Your task to perform on an android device: View the shopping cart on target. Image 0: 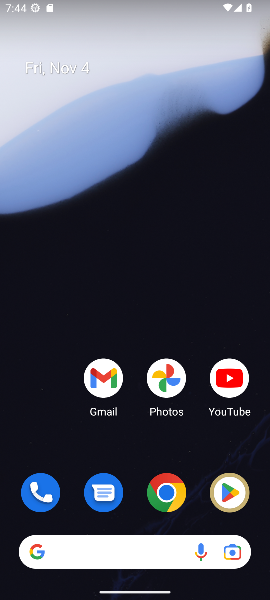
Step 0: drag from (138, 454) to (127, 0)
Your task to perform on an android device: View the shopping cart on target. Image 1: 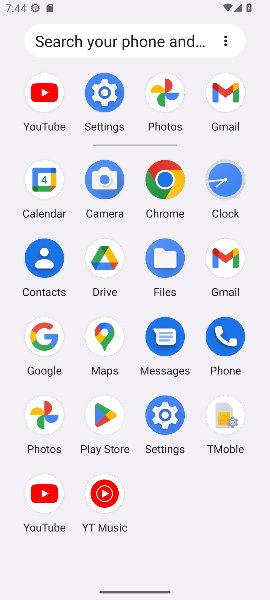
Step 1: click (165, 186)
Your task to perform on an android device: View the shopping cart on target. Image 2: 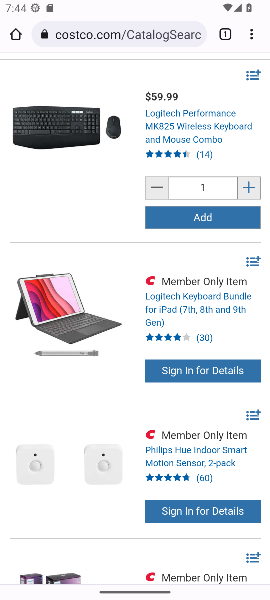
Step 2: click (137, 36)
Your task to perform on an android device: View the shopping cart on target. Image 3: 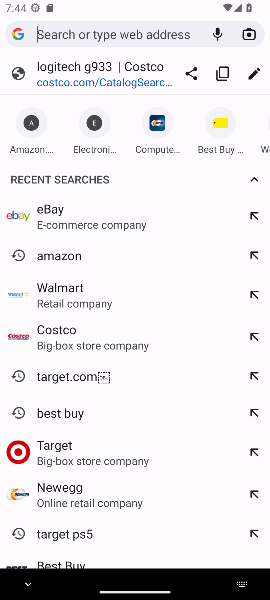
Step 3: type "target.com"
Your task to perform on an android device: View the shopping cart on target. Image 4: 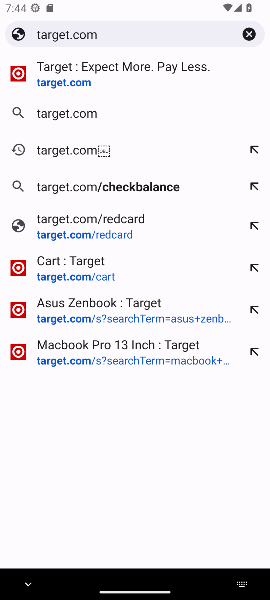
Step 4: press enter
Your task to perform on an android device: View the shopping cart on target. Image 5: 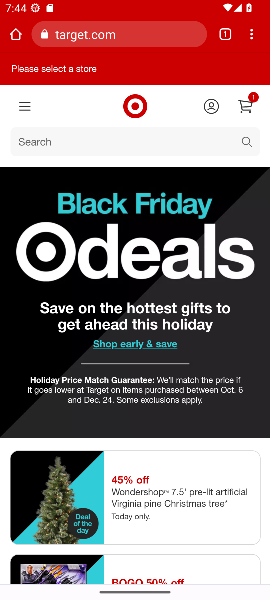
Step 5: click (251, 100)
Your task to perform on an android device: View the shopping cart on target. Image 6: 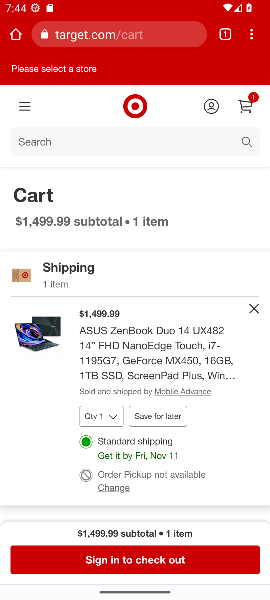
Step 6: task complete